Your task to perform on an android device: allow notifications from all sites in the chrome app Image 0: 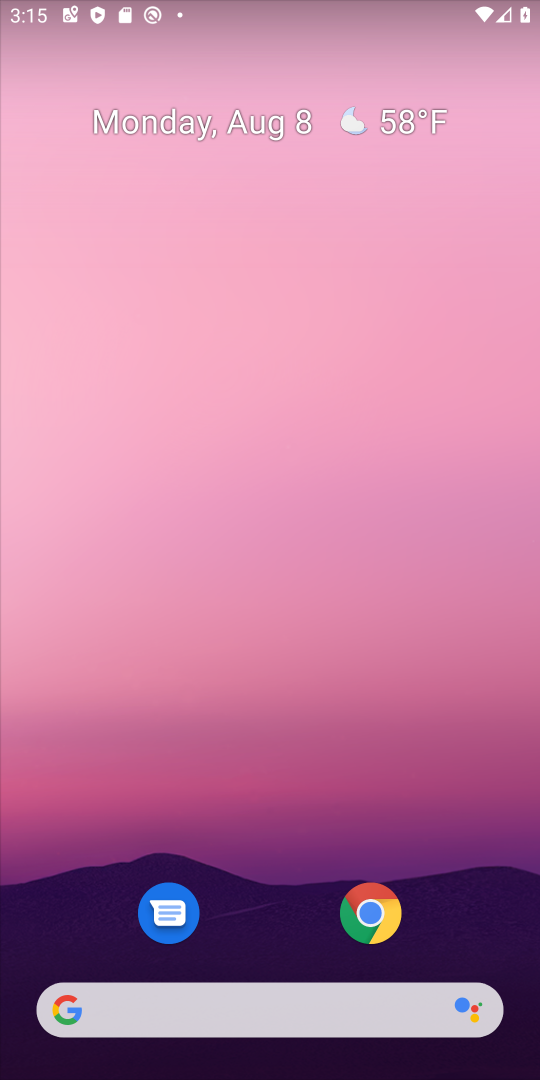
Step 0: press home button
Your task to perform on an android device: allow notifications from all sites in the chrome app Image 1: 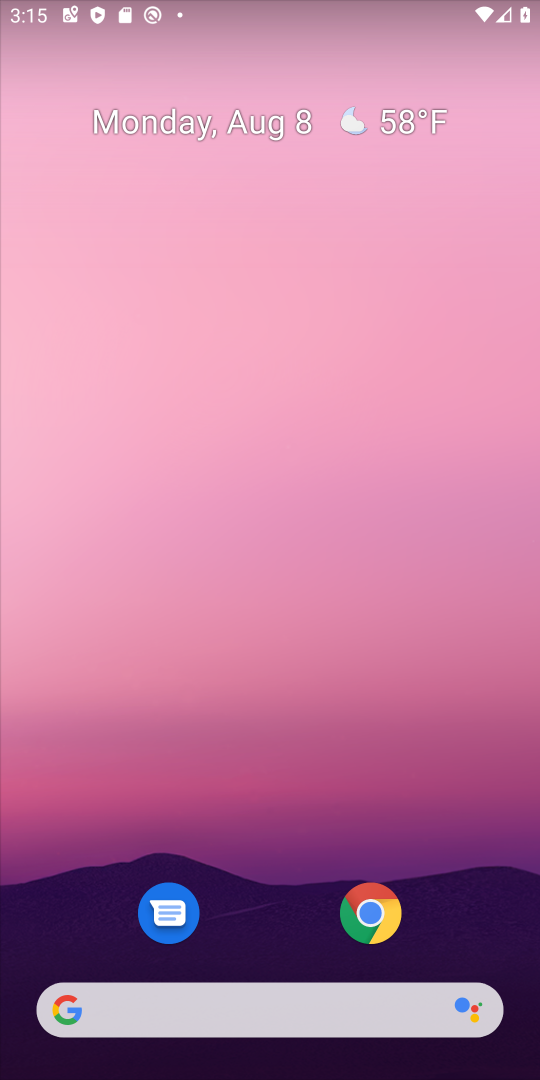
Step 1: drag from (269, 838) to (332, 306)
Your task to perform on an android device: allow notifications from all sites in the chrome app Image 2: 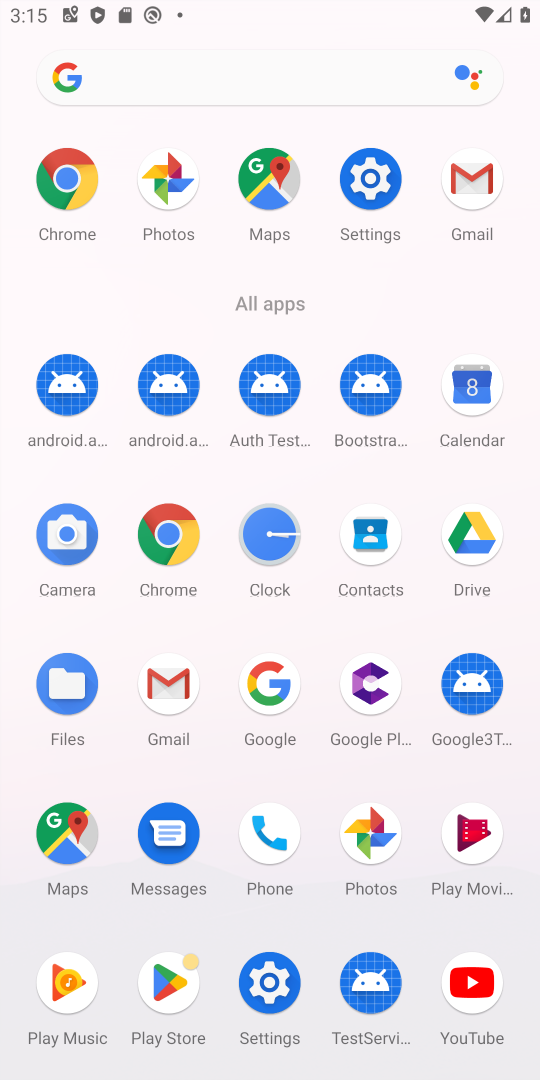
Step 2: click (143, 545)
Your task to perform on an android device: allow notifications from all sites in the chrome app Image 3: 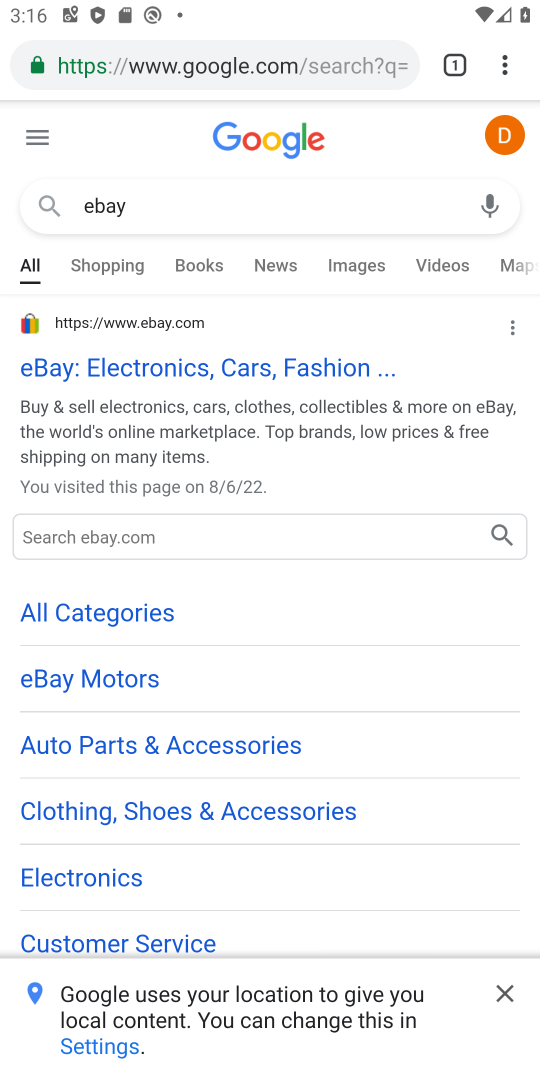
Step 3: click (508, 68)
Your task to perform on an android device: allow notifications from all sites in the chrome app Image 4: 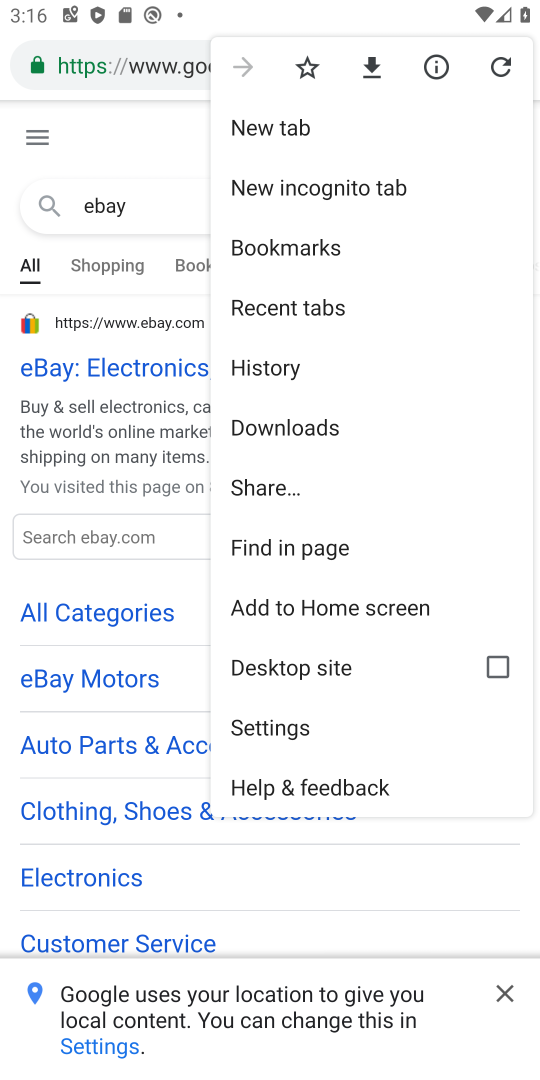
Step 4: click (289, 730)
Your task to perform on an android device: allow notifications from all sites in the chrome app Image 5: 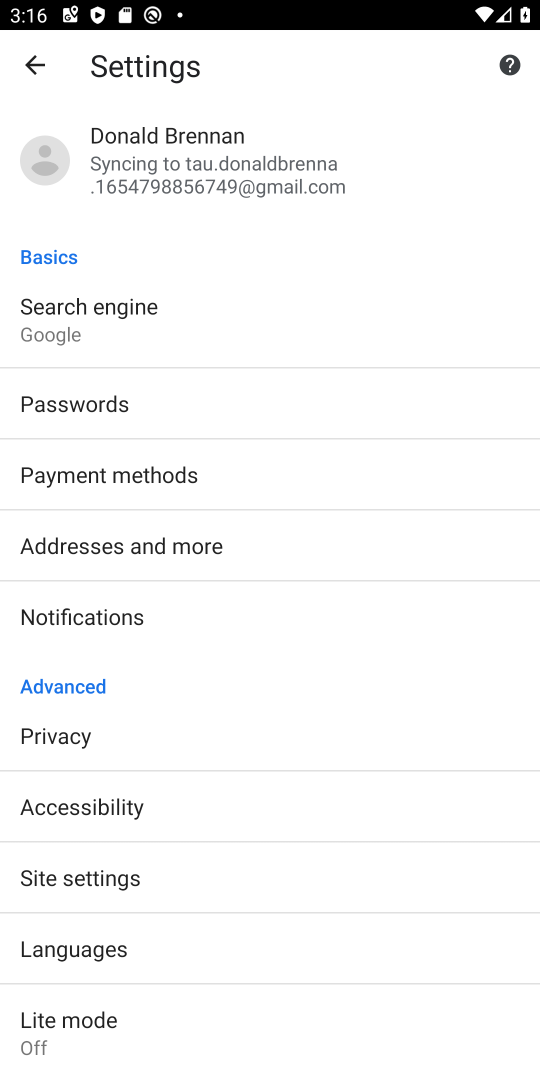
Step 5: drag from (346, 698) to (359, 536)
Your task to perform on an android device: allow notifications from all sites in the chrome app Image 6: 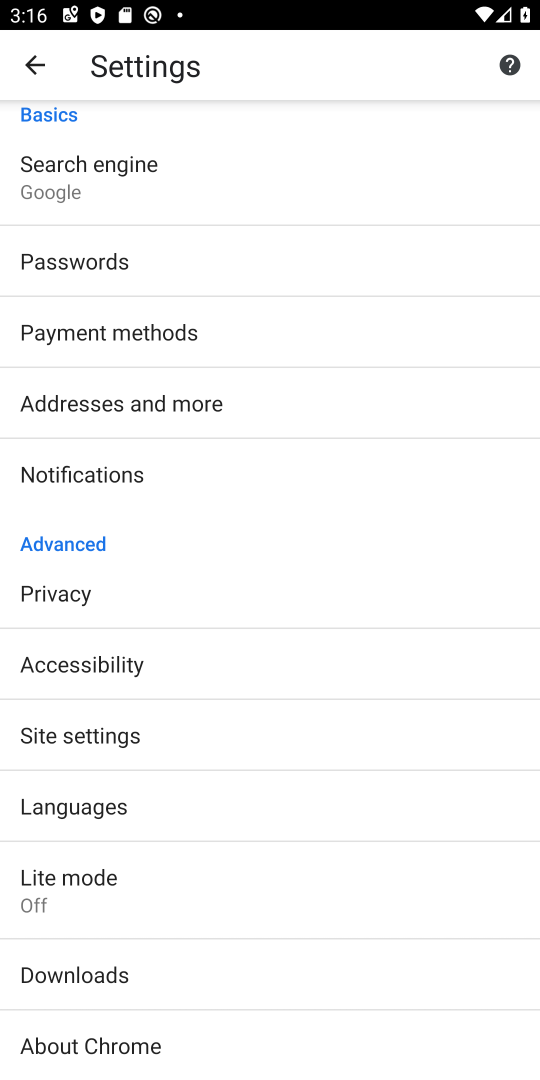
Step 6: drag from (340, 777) to (361, 467)
Your task to perform on an android device: allow notifications from all sites in the chrome app Image 7: 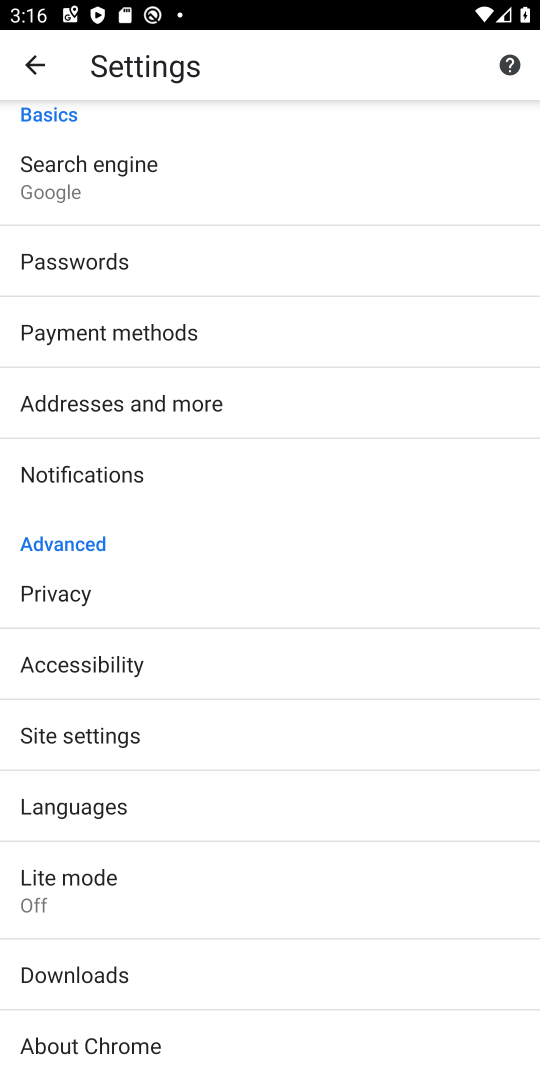
Step 7: click (326, 737)
Your task to perform on an android device: allow notifications from all sites in the chrome app Image 8: 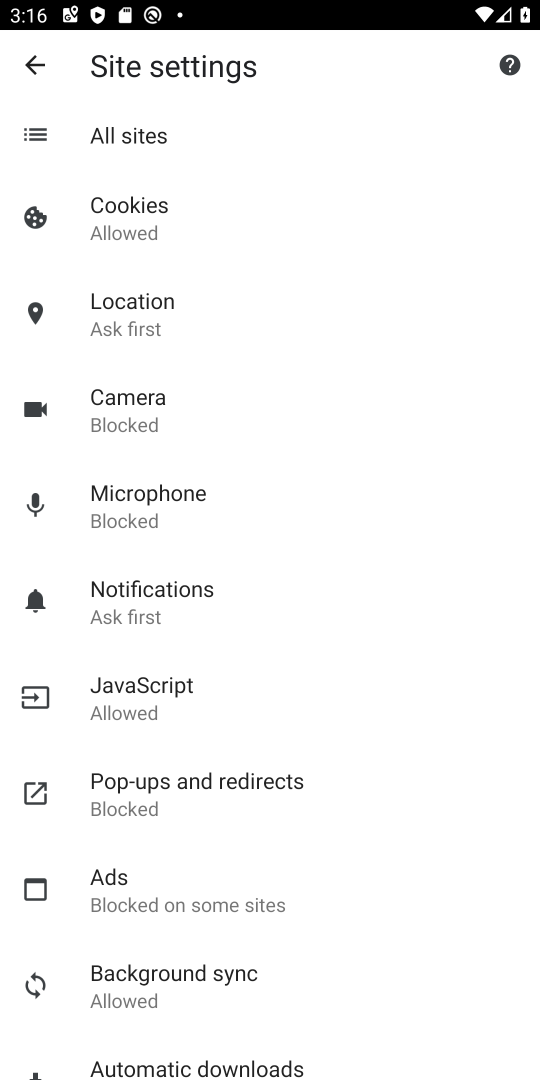
Step 8: drag from (399, 825) to (433, 628)
Your task to perform on an android device: allow notifications from all sites in the chrome app Image 9: 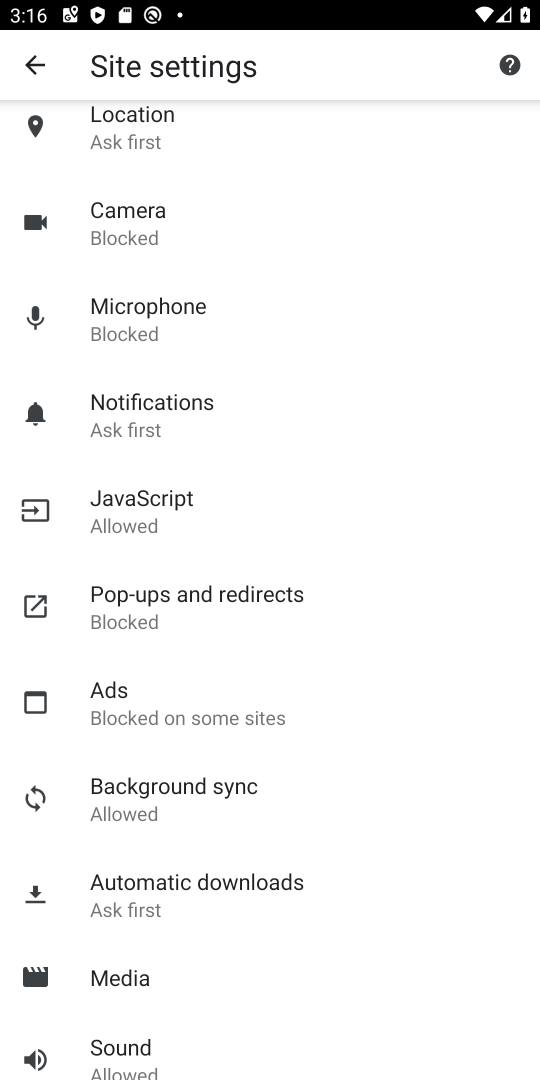
Step 9: drag from (399, 731) to (404, 559)
Your task to perform on an android device: allow notifications from all sites in the chrome app Image 10: 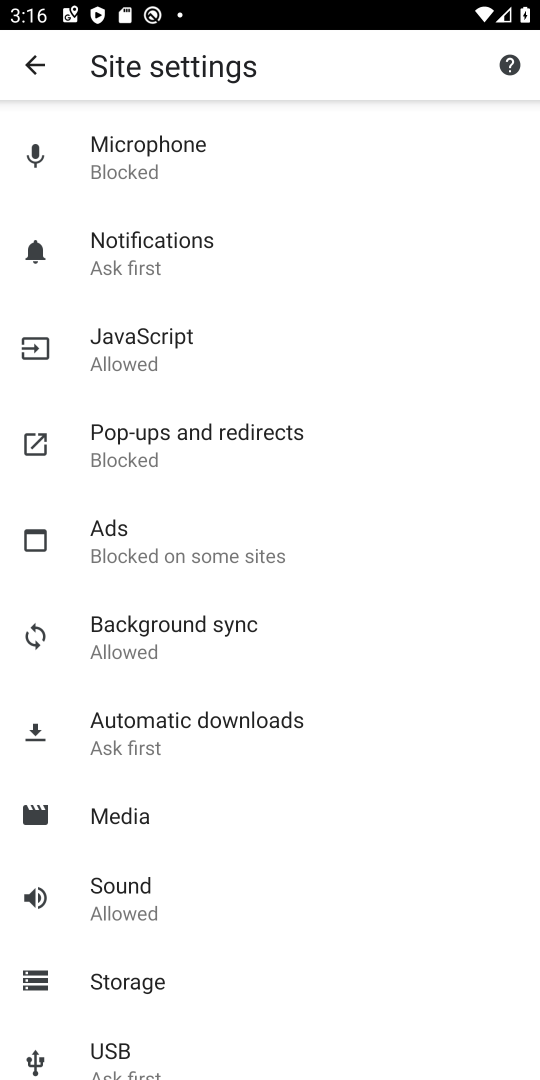
Step 10: click (231, 267)
Your task to perform on an android device: allow notifications from all sites in the chrome app Image 11: 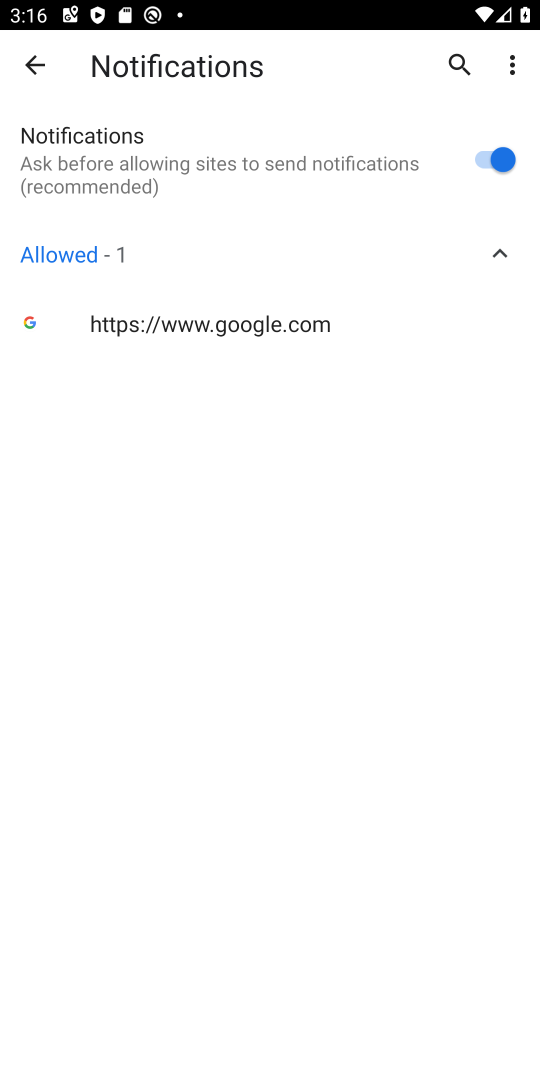
Step 11: task complete